Your task to perform on an android device: uninstall "Truecaller" Image 0: 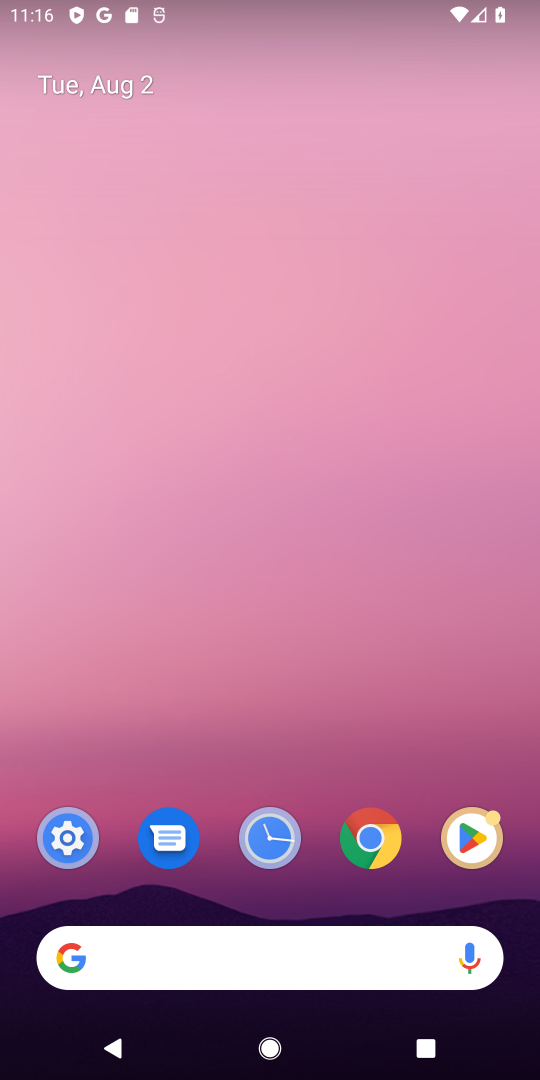
Step 0: drag from (221, 964) to (214, 356)
Your task to perform on an android device: uninstall "Truecaller" Image 1: 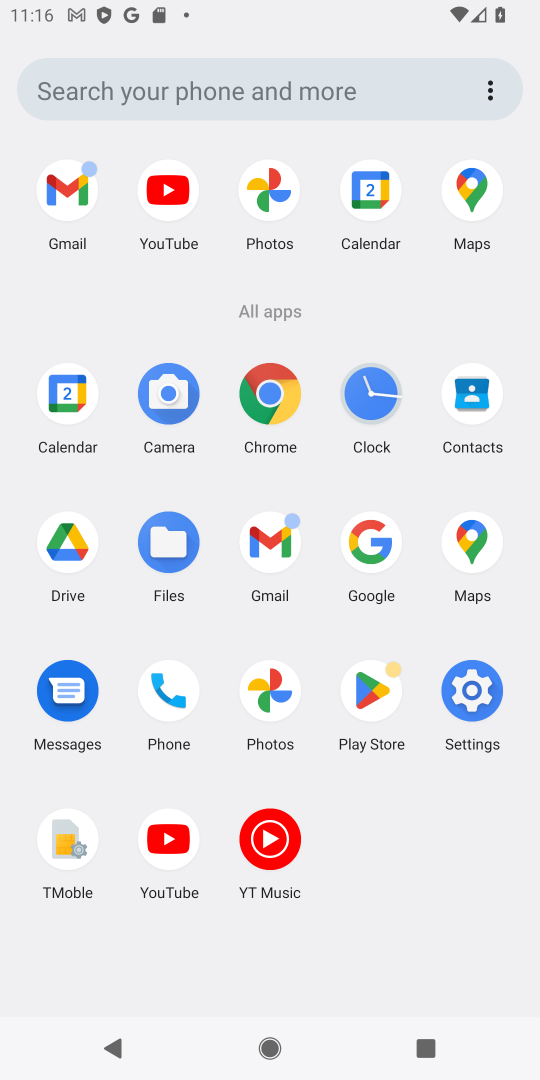
Step 1: click (373, 678)
Your task to perform on an android device: uninstall "Truecaller" Image 2: 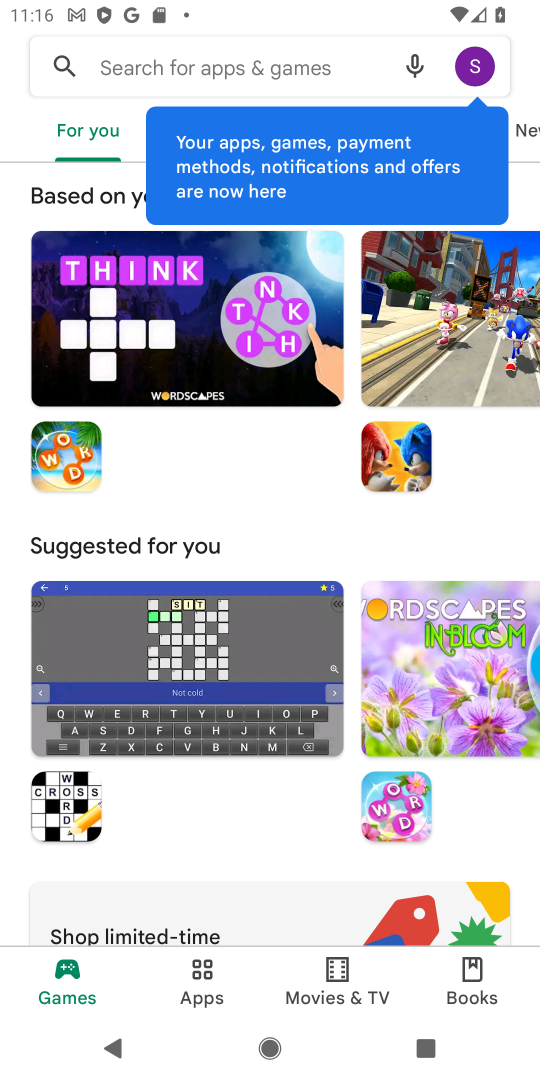
Step 2: click (276, 63)
Your task to perform on an android device: uninstall "Truecaller" Image 3: 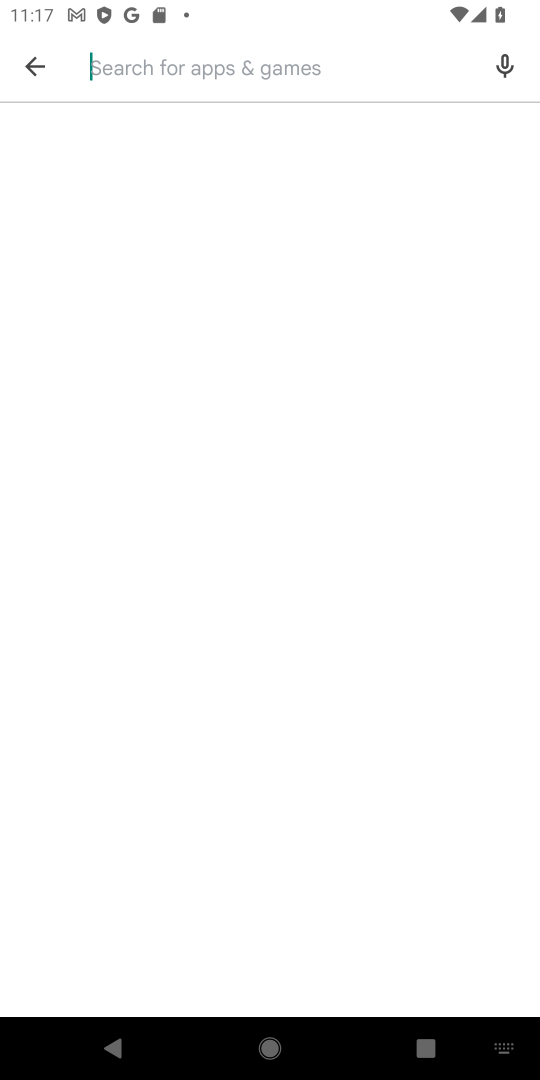
Step 3: type "truecaller"
Your task to perform on an android device: uninstall "Truecaller" Image 4: 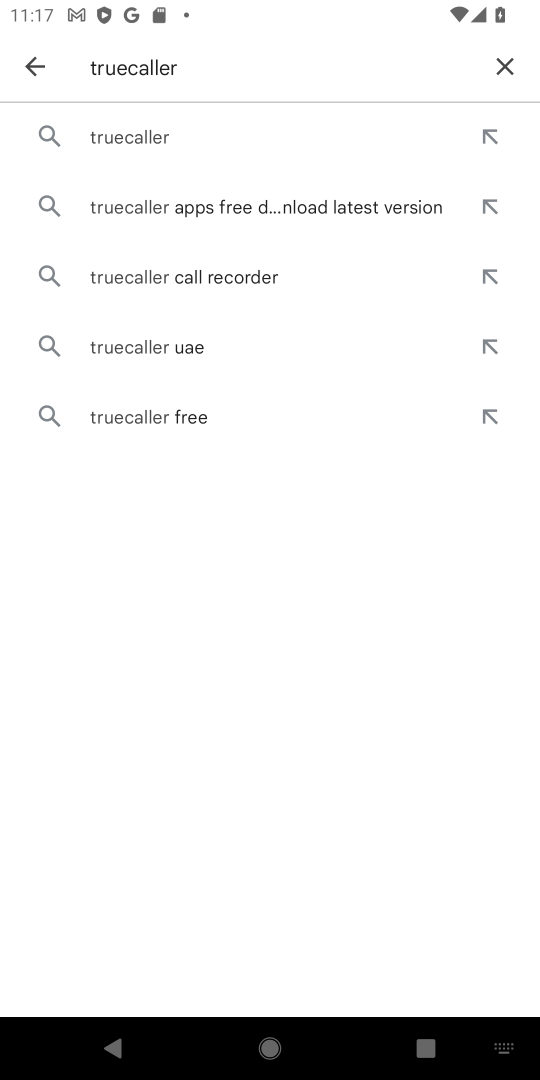
Step 4: click (162, 148)
Your task to perform on an android device: uninstall "Truecaller" Image 5: 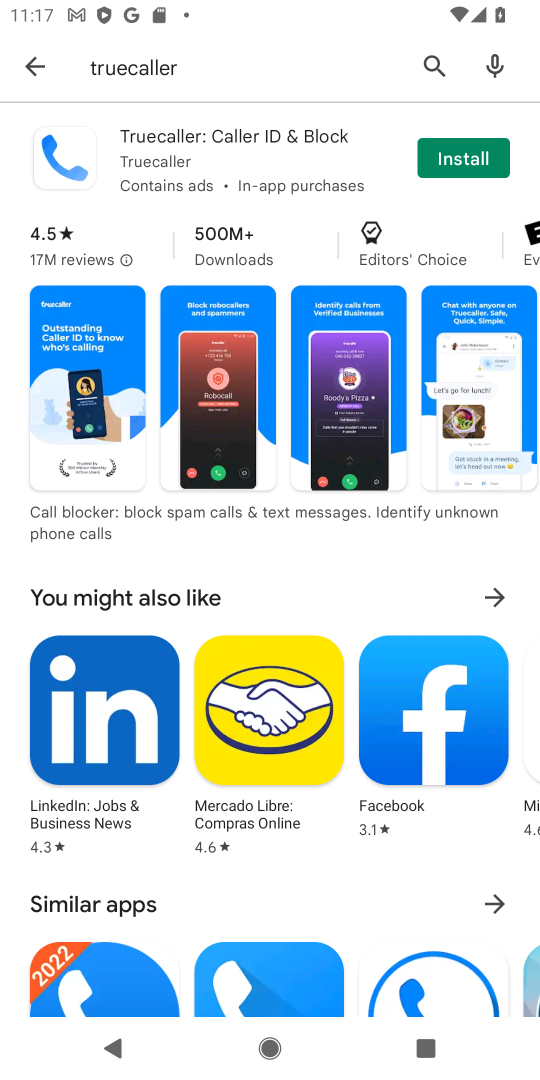
Step 5: task complete